Your task to perform on an android device: Clear the cart on amazon. Add razer kraken to the cart on amazon Image 0: 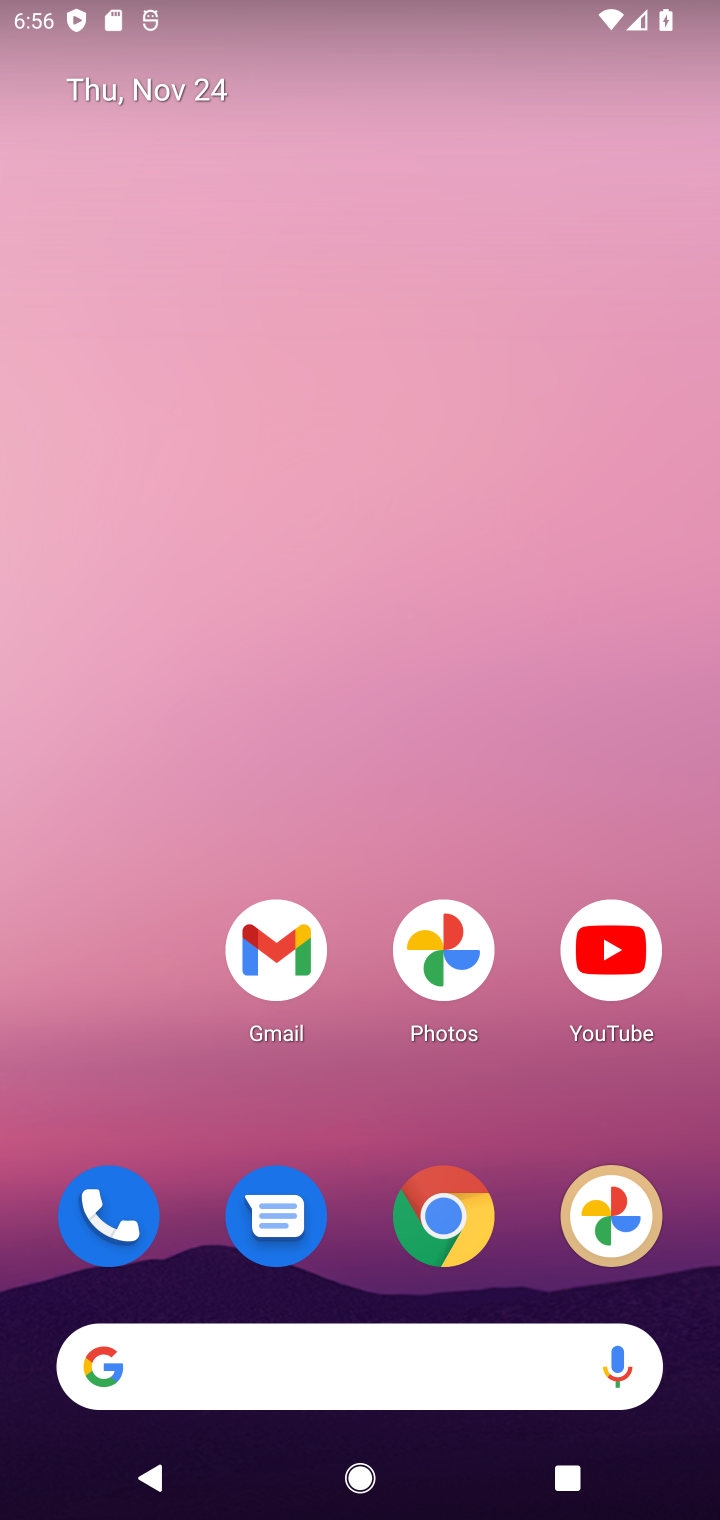
Step 0: click (435, 1207)
Your task to perform on an android device: Clear the cart on amazon. Add razer kraken to the cart on amazon Image 1: 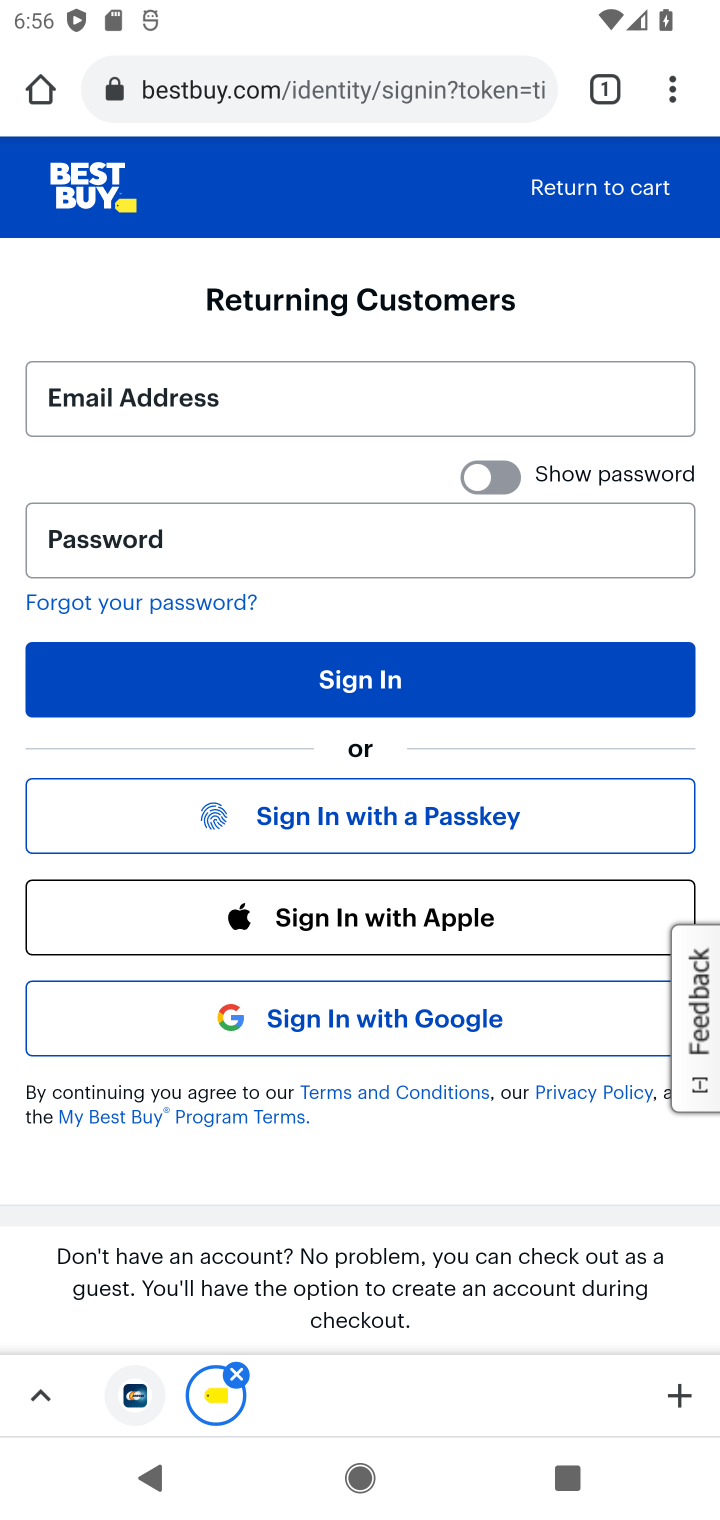
Step 1: click (369, 100)
Your task to perform on an android device: Clear the cart on amazon. Add razer kraken to the cart on amazon Image 2: 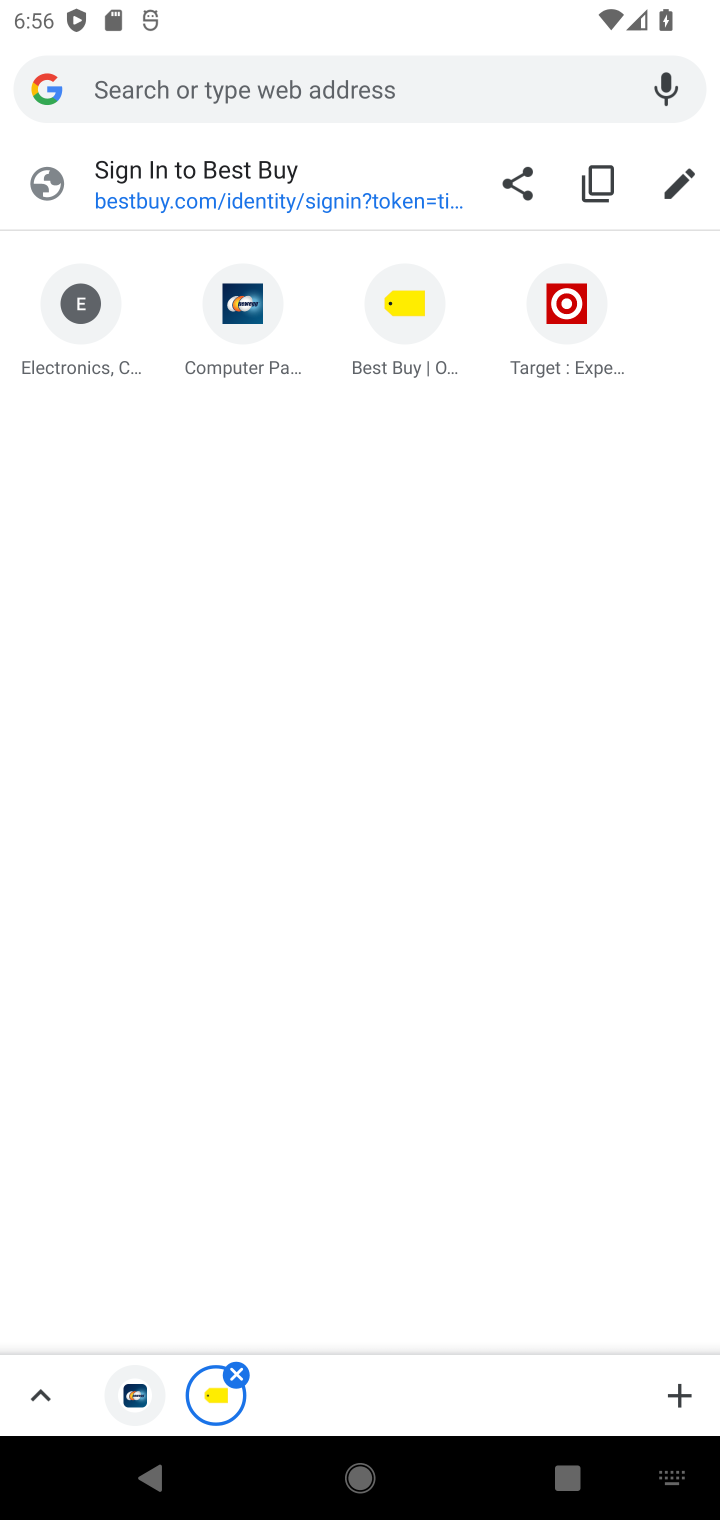
Step 2: type "amazon"
Your task to perform on an android device: Clear the cart on amazon. Add razer kraken to the cart on amazon Image 3: 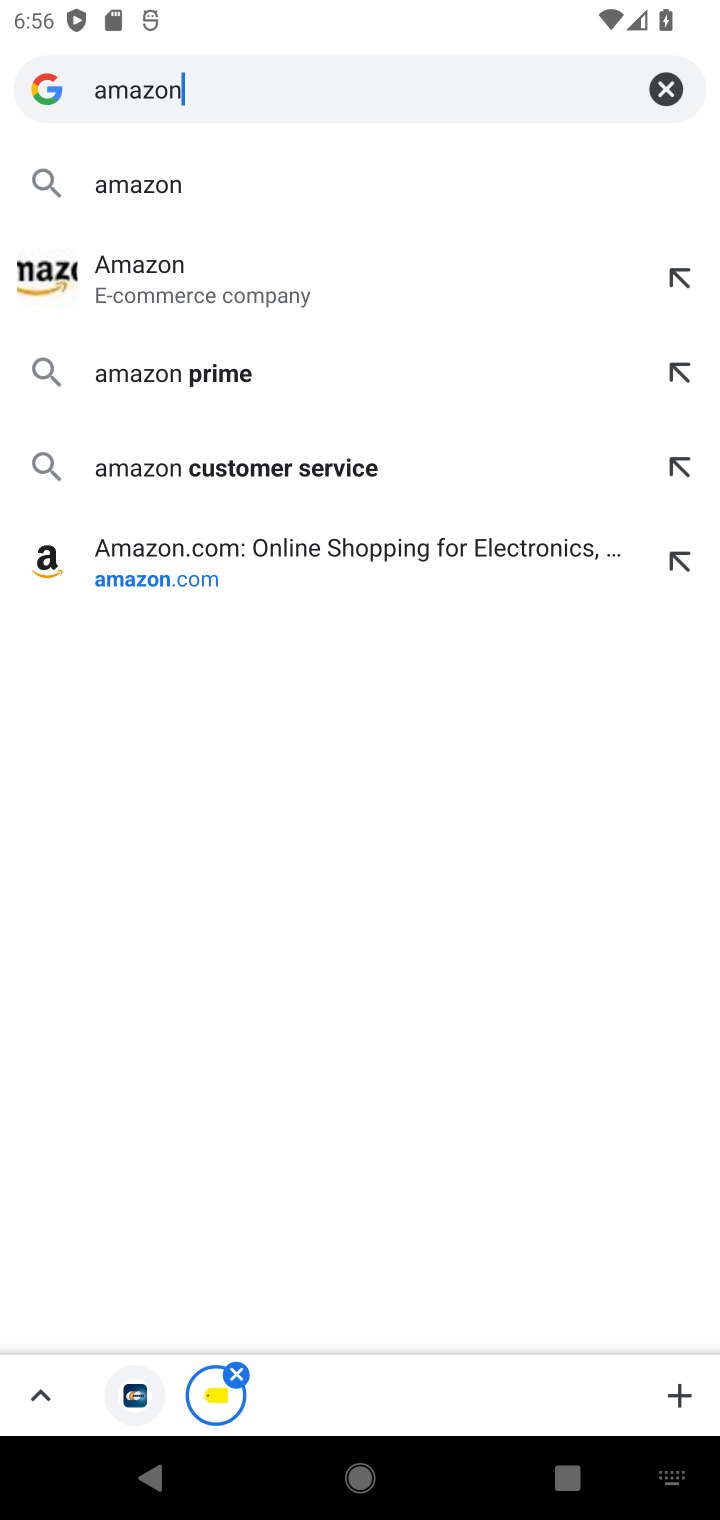
Step 3: click (159, 190)
Your task to perform on an android device: Clear the cart on amazon. Add razer kraken to the cart on amazon Image 4: 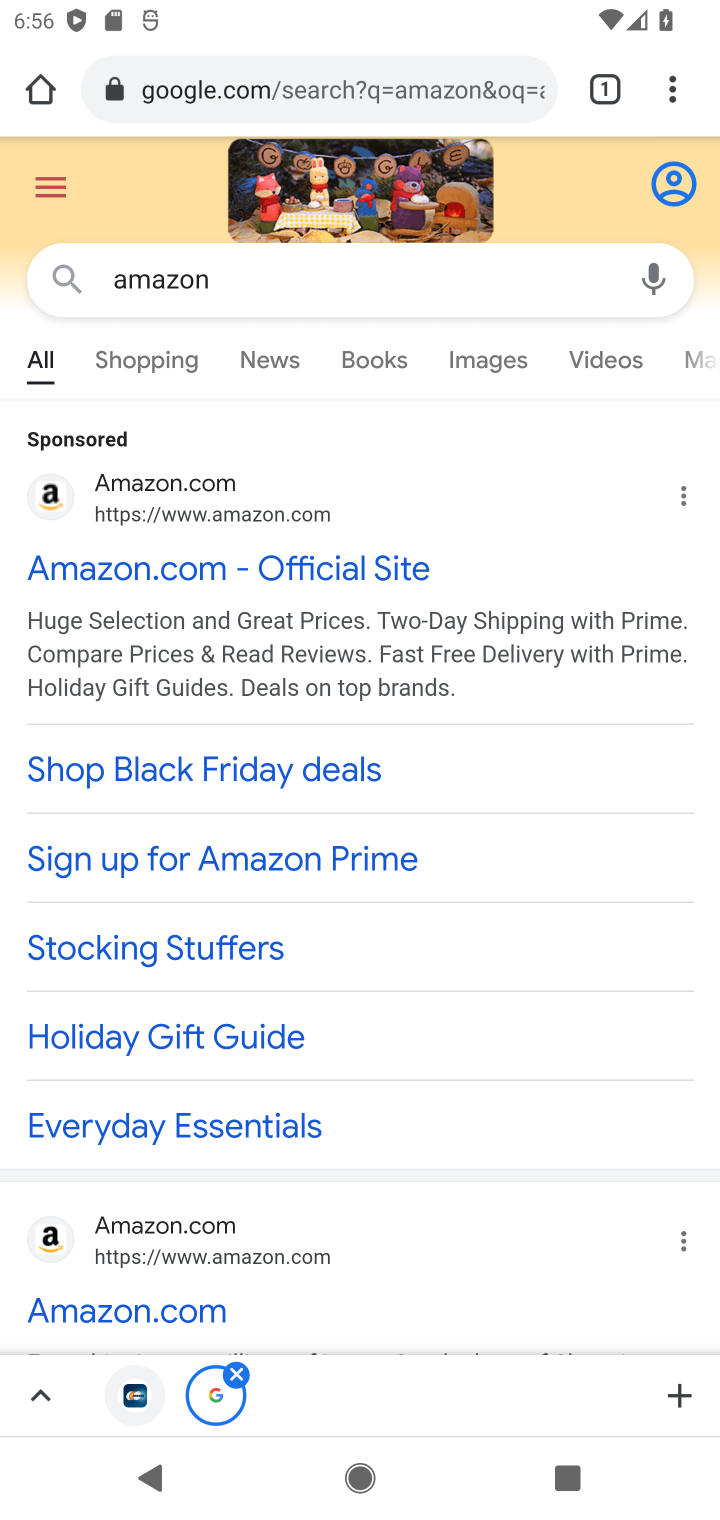
Step 4: click (203, 564)
Your task to perform on an android device: Clear the cart on amazon. Add razer kraken to the cart on amazon Image 5: 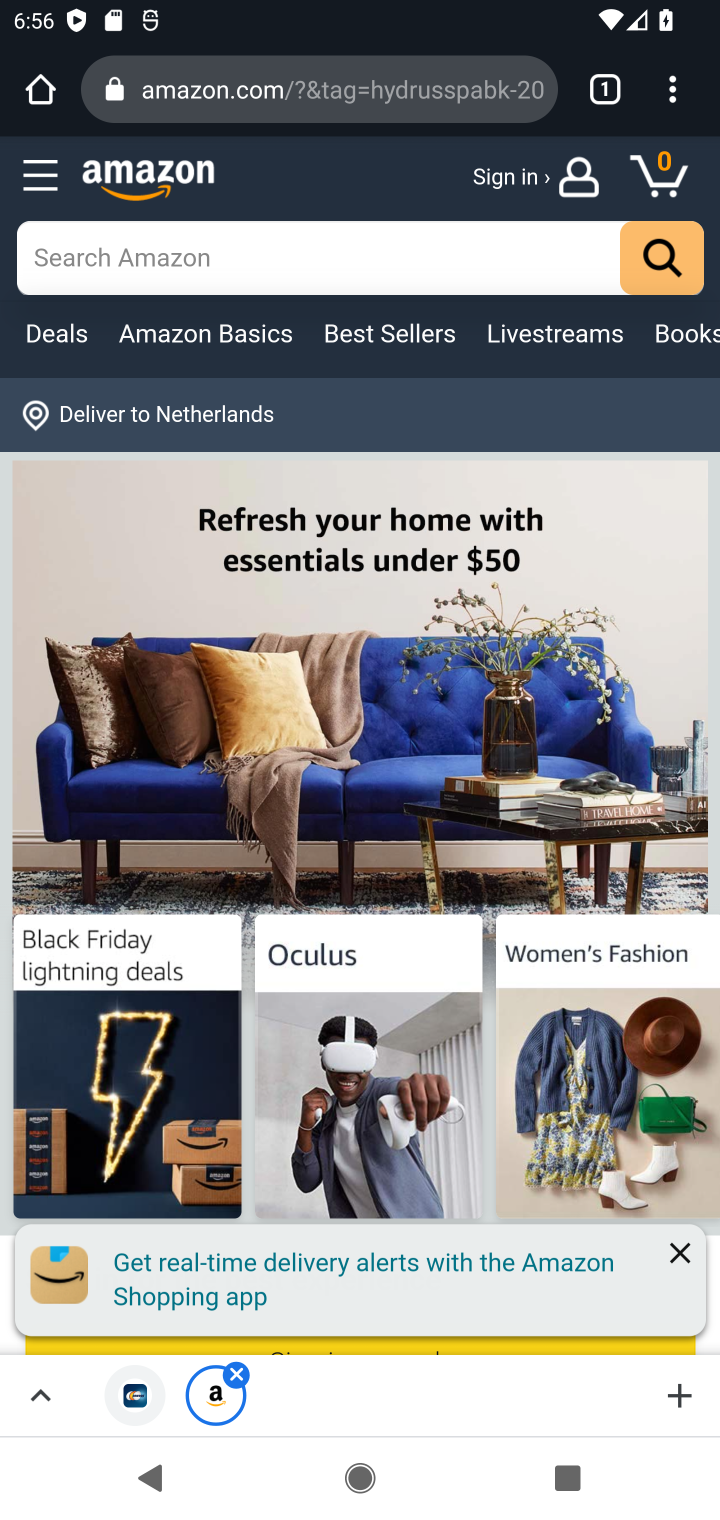
Step 5: click (667, 188)
Your task to perform on an android device: Clear the cart on amazon. Add razer kraken to the cart on amazon Image 6: 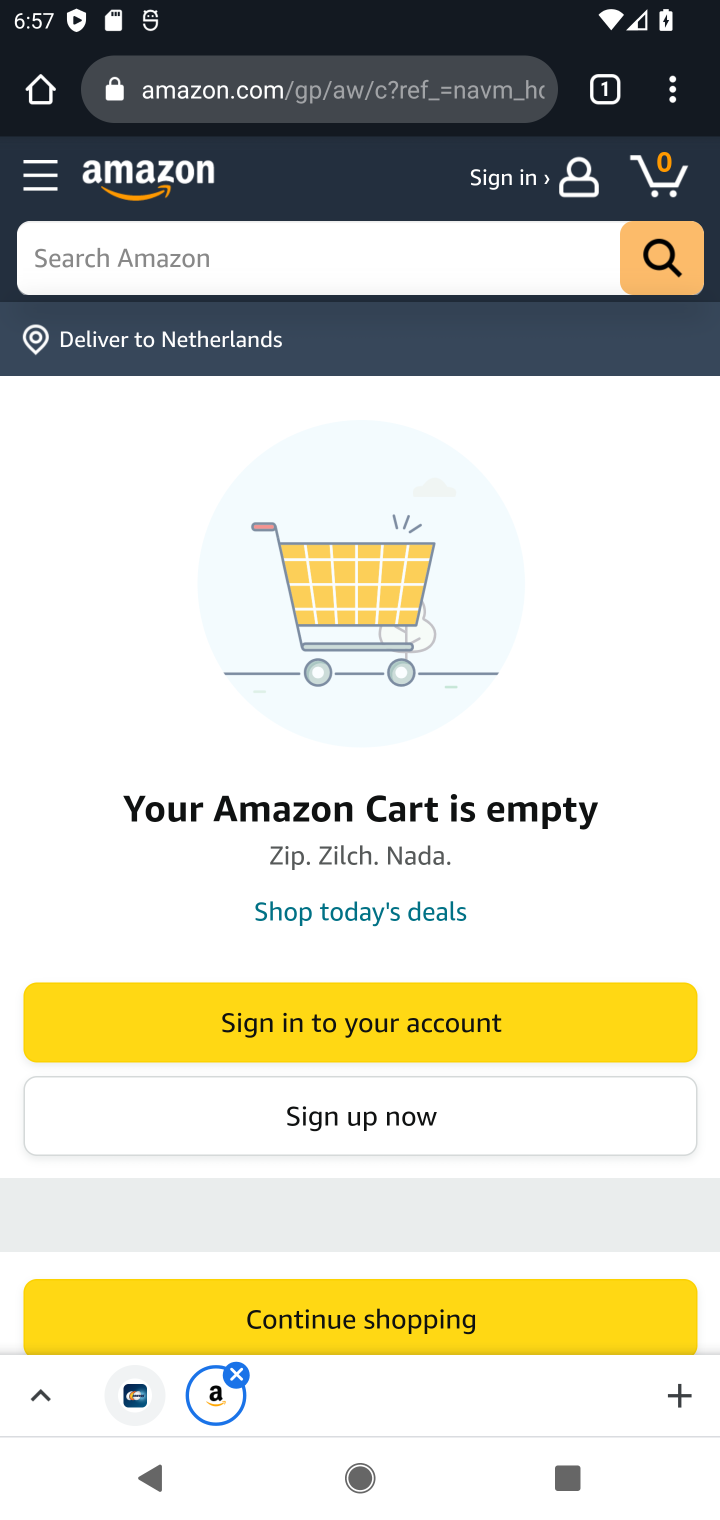
Step 6: click (306, 253)
Your task to perform on an android device: Clear the cart on amazon. Add razer kraken to the cart on amazon Image 7: 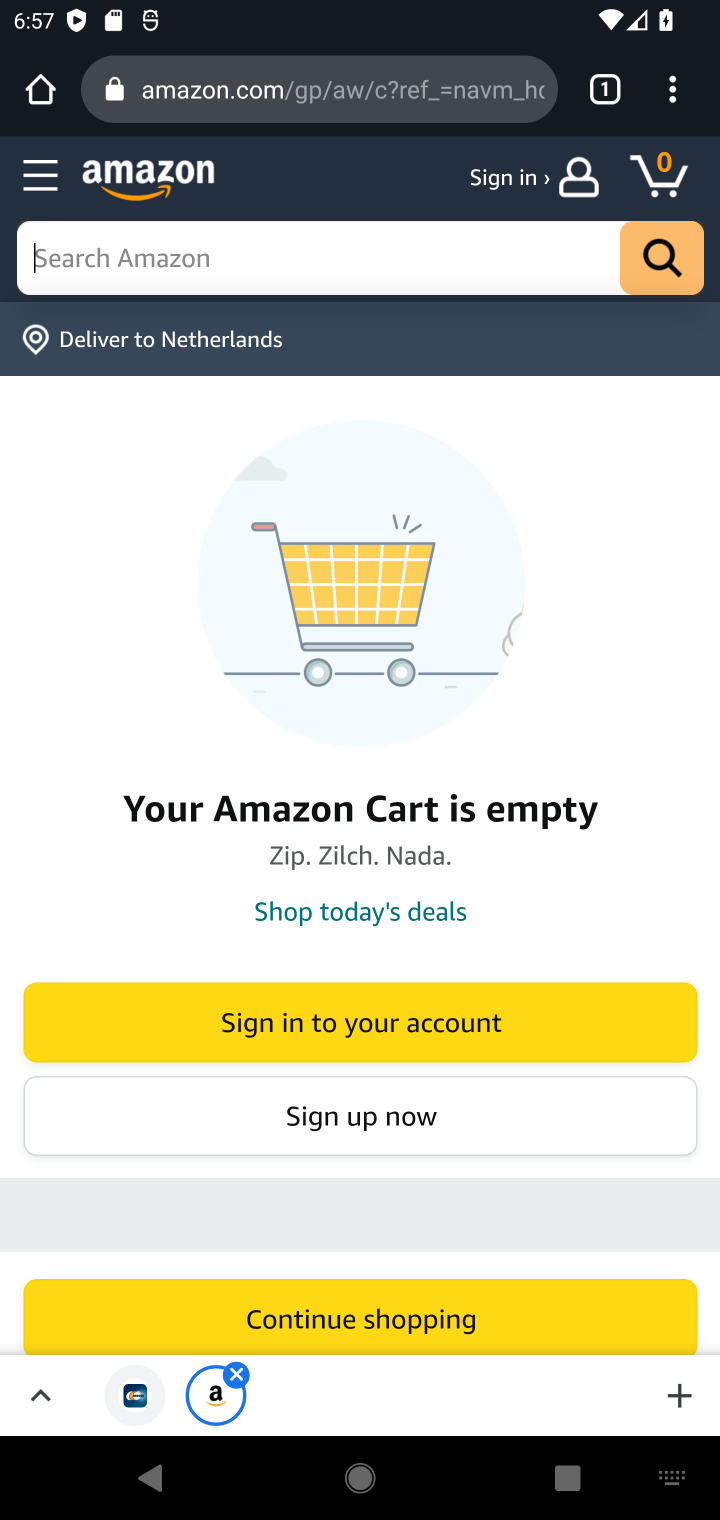
Step 7: type "razer kraken"
Your task to perform on an android device: Clear the cart on amazon. Add razer kraken to the cart on amazon Image 8: 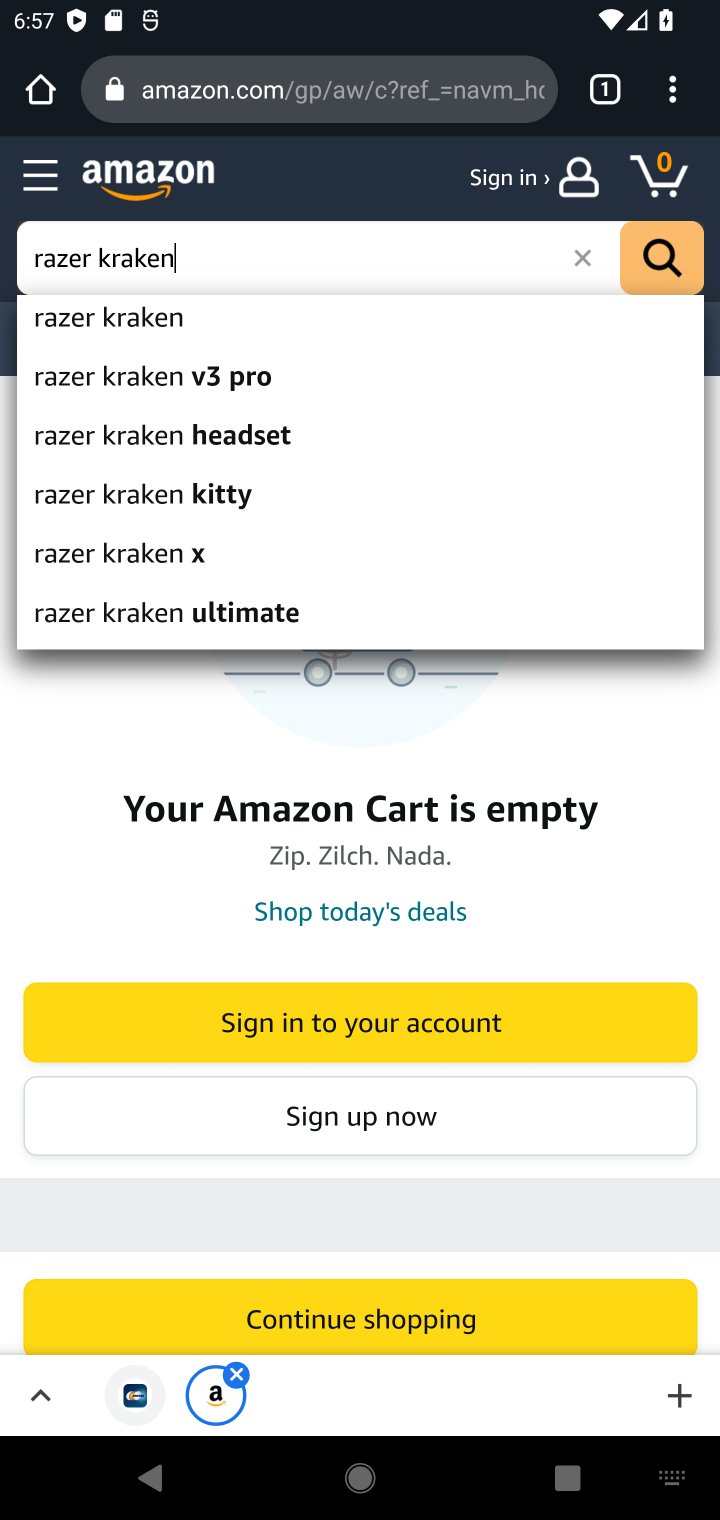
Step 8: click (145, 305)
Your task to perform on an android device: Clear the cart on amazon. Add razer kraken to the cart on amazon Image 9: 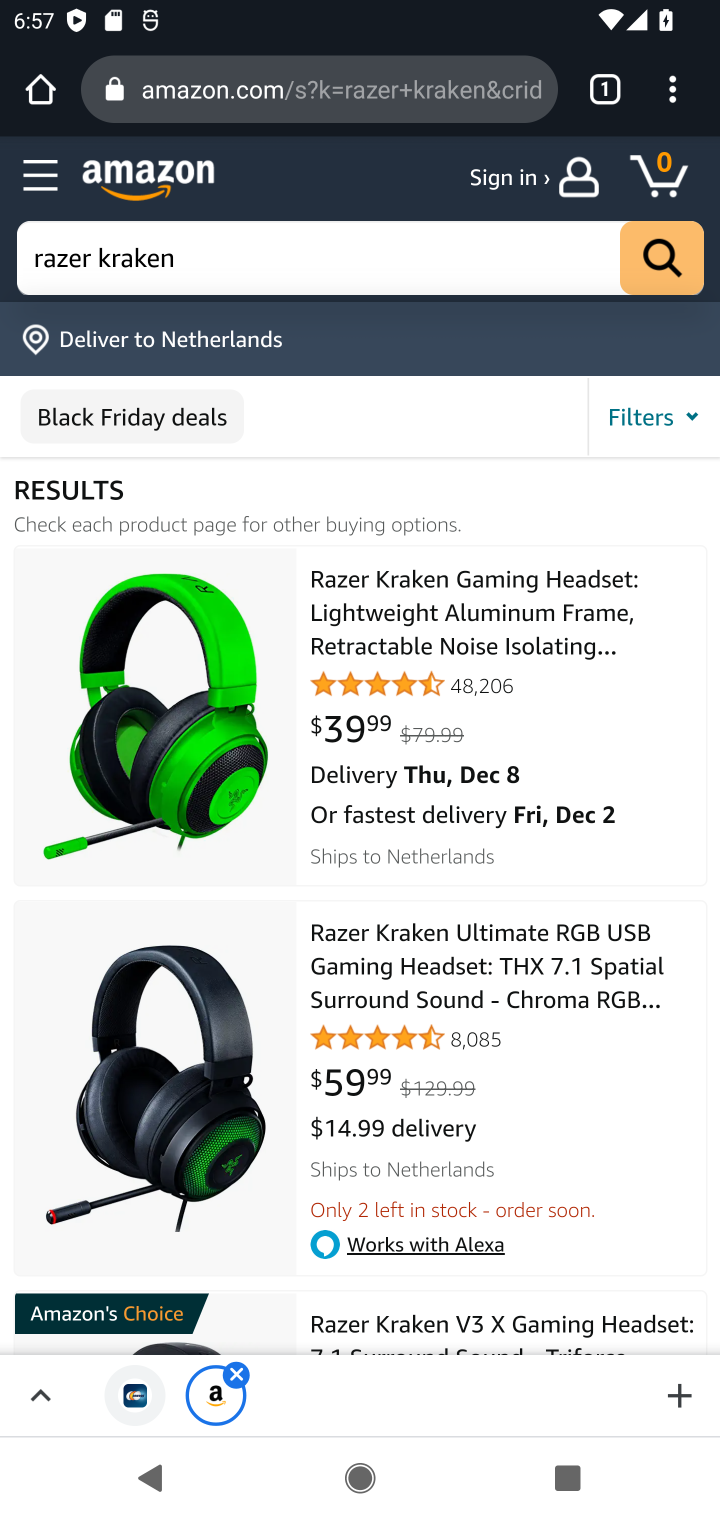
Step 9: click (445, 601)
Your task to perform on an android device: Clear the cart on amazon. Add razer kraken to the cart on amazon Image 10: 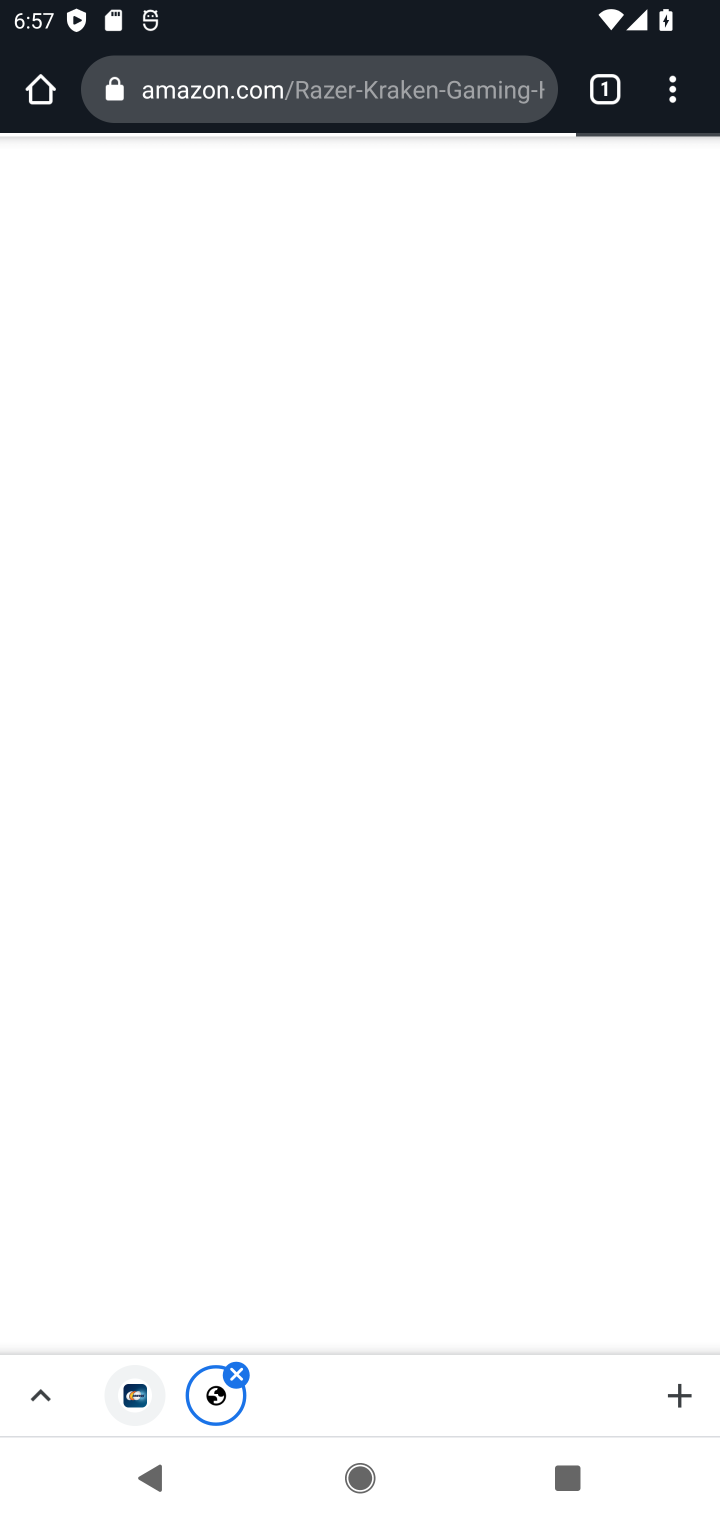
Step 10: drag from (317, 1051) to (323, 608)
Your task to perform on an android device: Clear the cart on amazon. Add razer kraken to the cart on amazon Image 11: 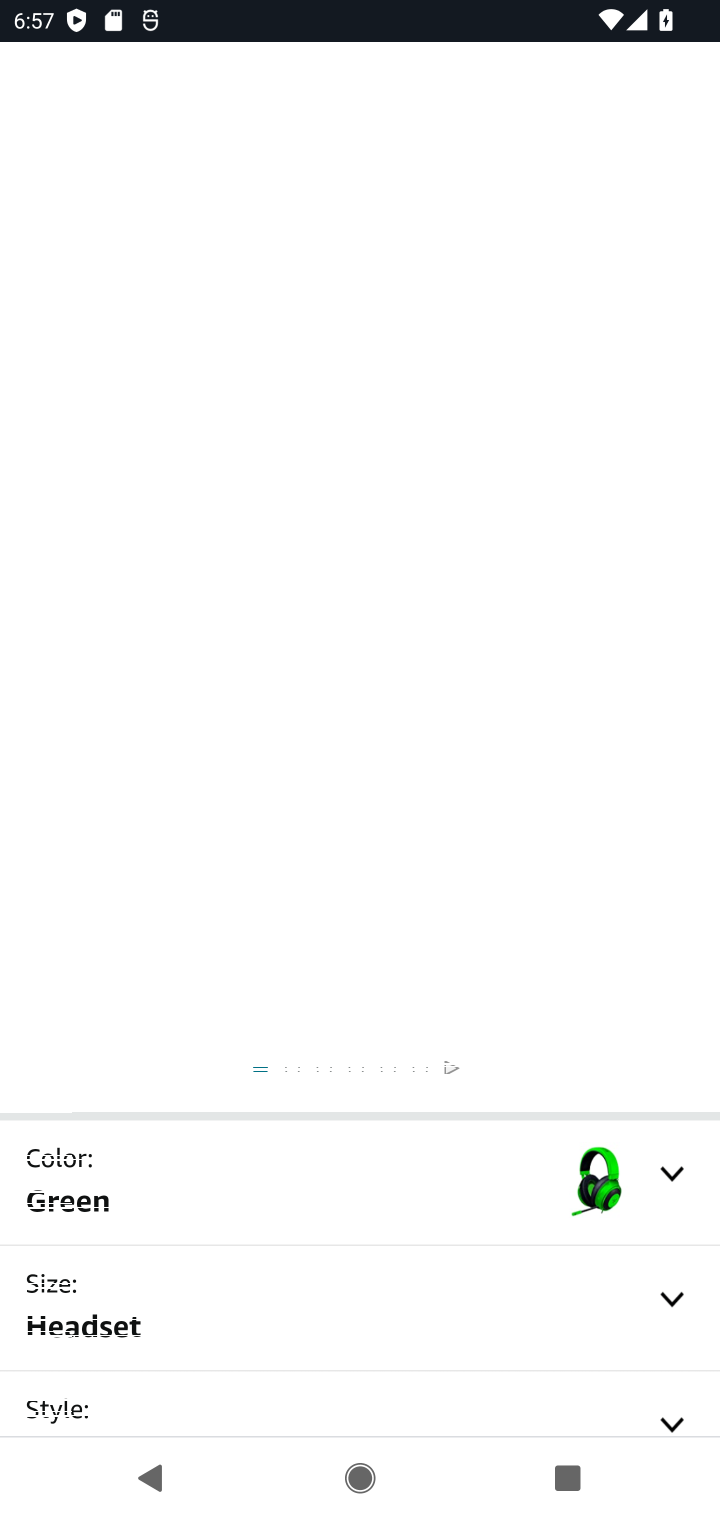
Step 11: drag from (337, 1081) to (355, 623)
Your task to perform on an android device: Clear the cart on amazon. Add razer kraken to the cart on amazon Image 12: 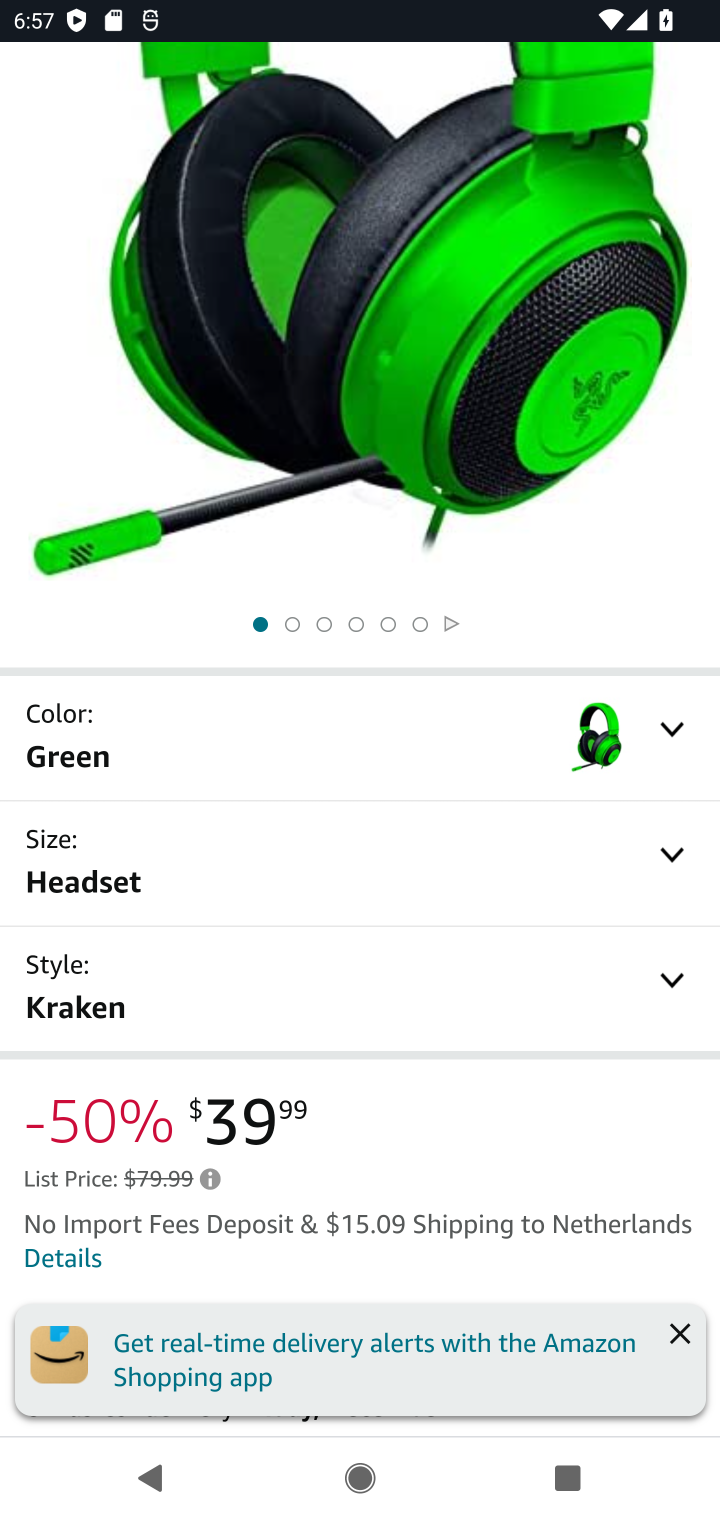
Step 12: drag from (415, 1189) to (397, 713)
Your task to perform on an android device: Clear the cart on amazon. Add razer kraken to the cart on amazon Image 13: 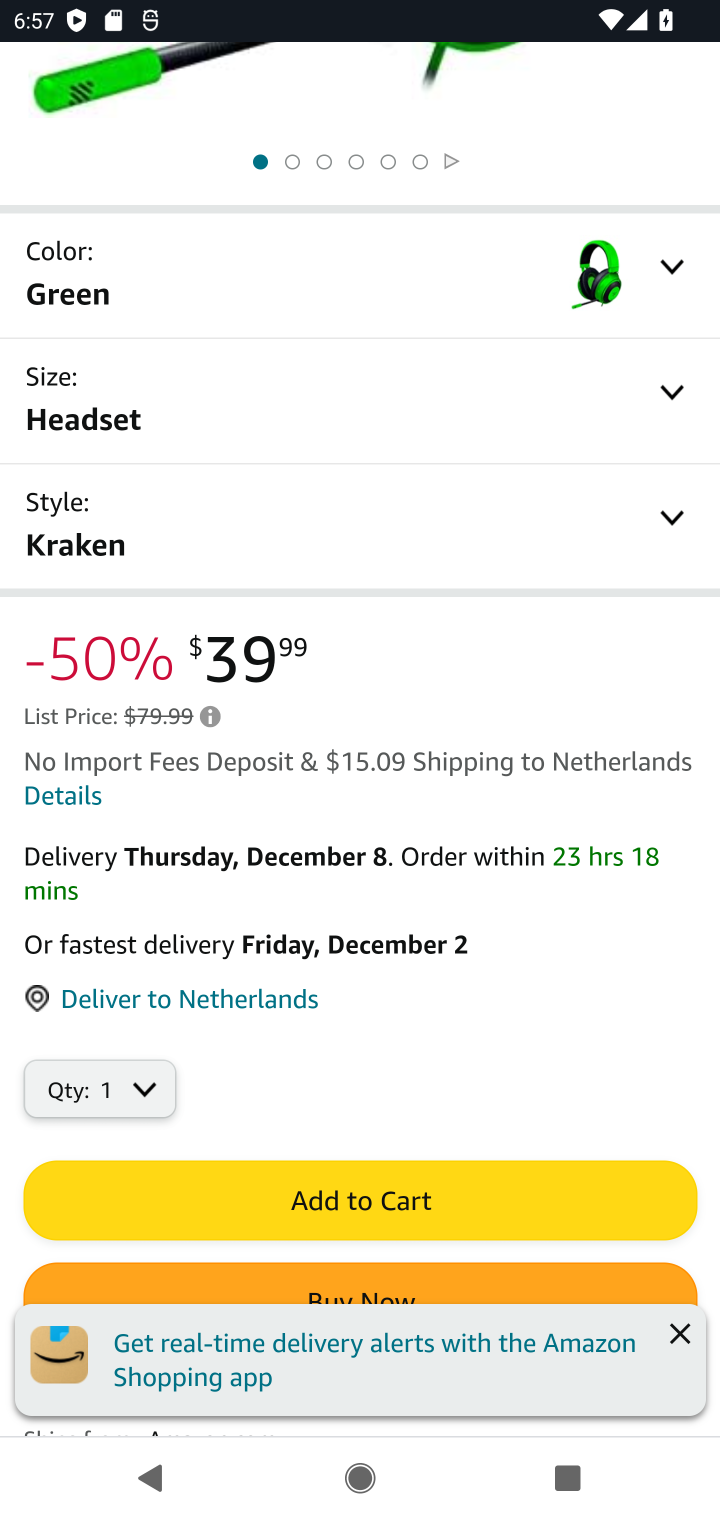
Step 13: drag from (434, 1090) to (450, 916)
Your task to perform on an android device: Clear the cart on amazon. Add razer kraken to the cart on amazon Image 14: 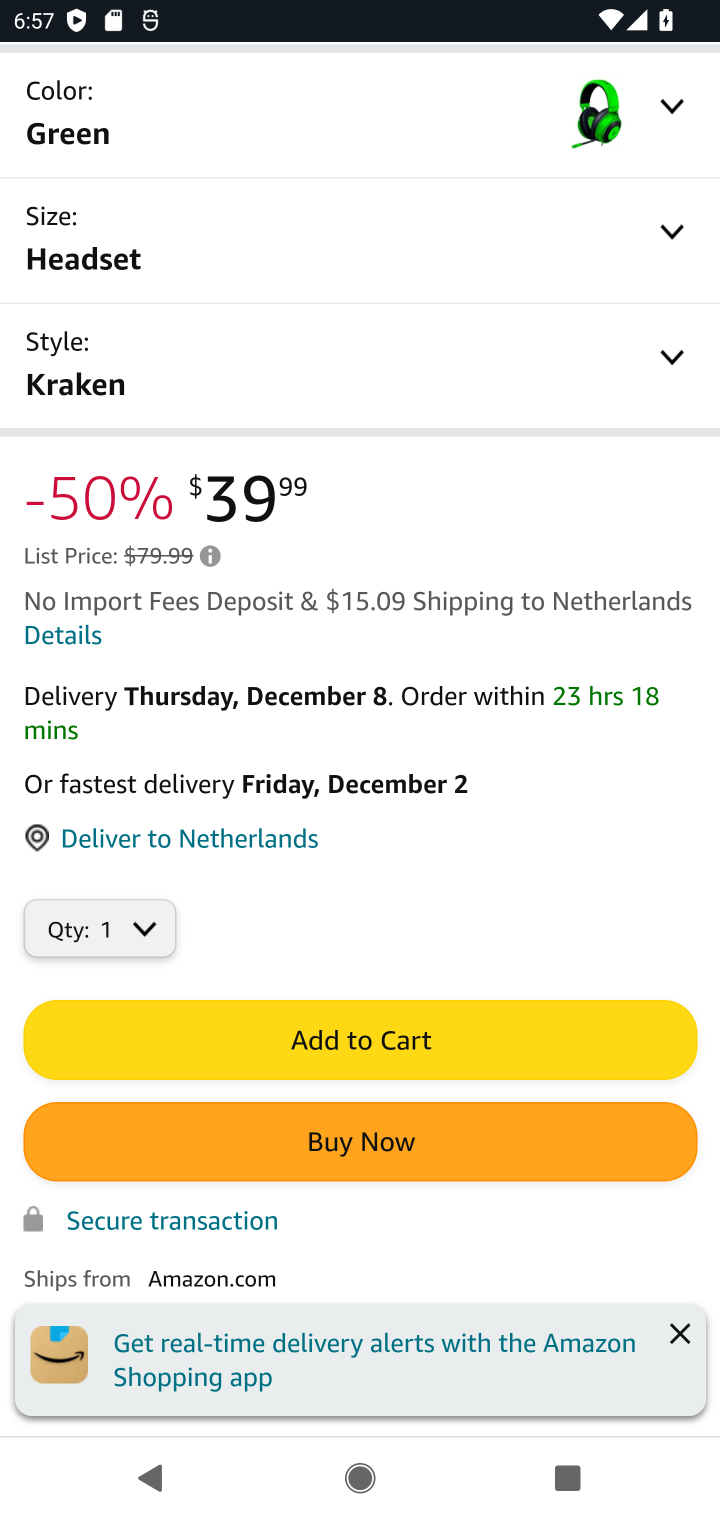
Step 14: click (361, 1039)
Your task to perform on an android device: Clear the cart on amazon. Add razer kraken to the cart on amazon Image 15: 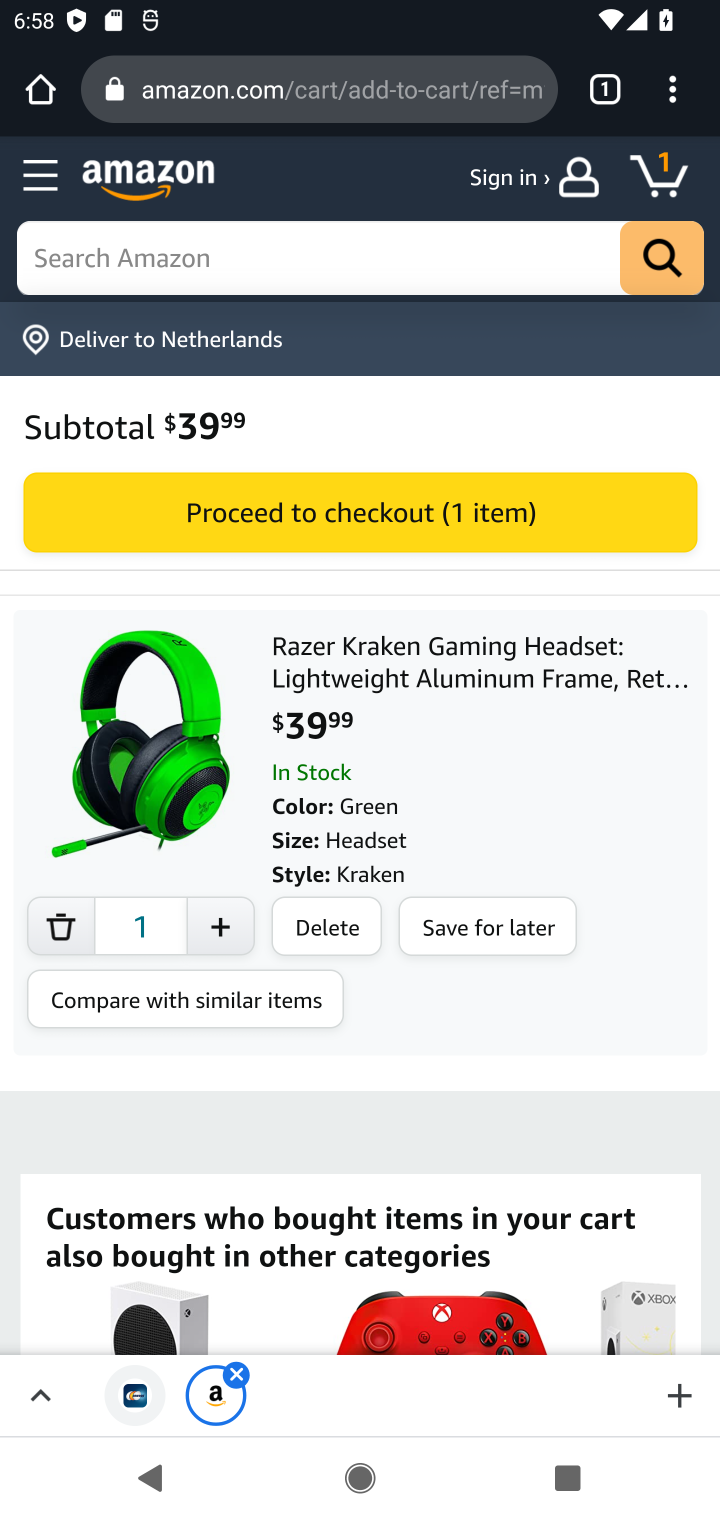
Step 15: task complete